Your task to perform on an android device: install app "Google Duo" Image 0: 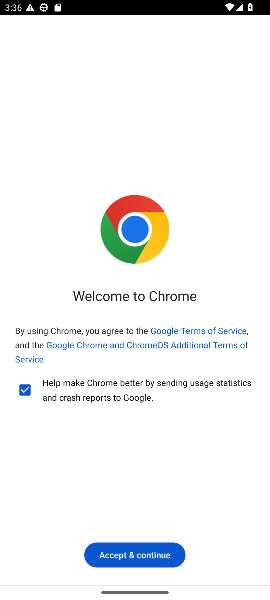
Step 0: press home button
Your task to perform on an android device: install app "Google Duo" Image 1: 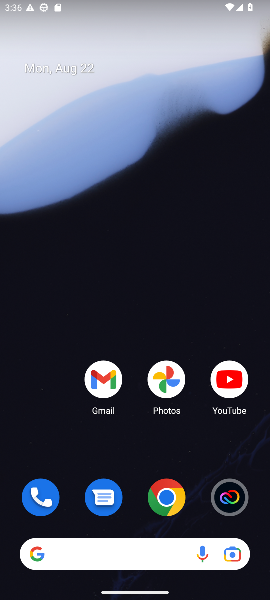
Step 1: drag from (131, 443) to (129, 86)
Your task to perform on an android device: install app "Google Duo" Image 2: 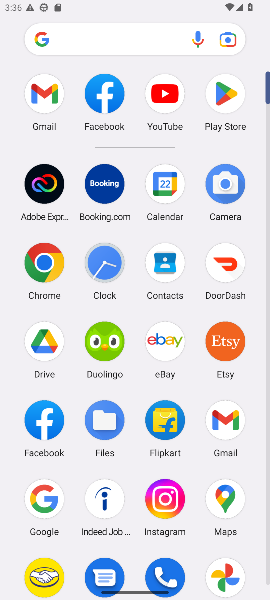
Step 2: click (214, 105)
Your task to perform on an android device: install app "Google Duo" Image 3: 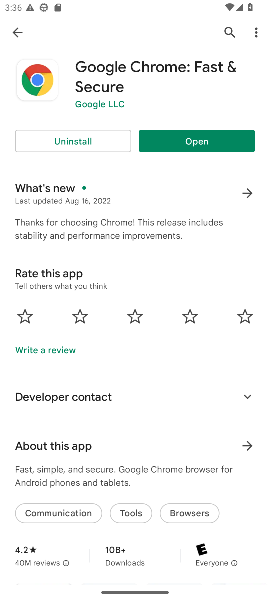
Step 3: click (229, 23)
Your task to perform on an android device: install app "Google Duo" Image 4: 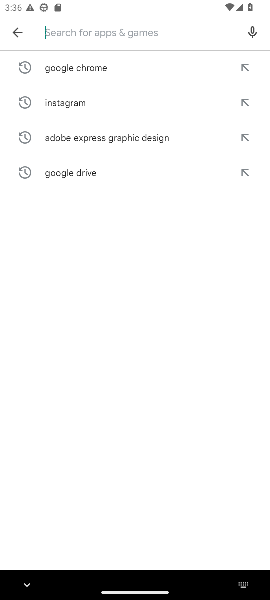
Step 4: type "Google Duo"
Your task to perform on an android device: install app "Google Duo" Image 5: 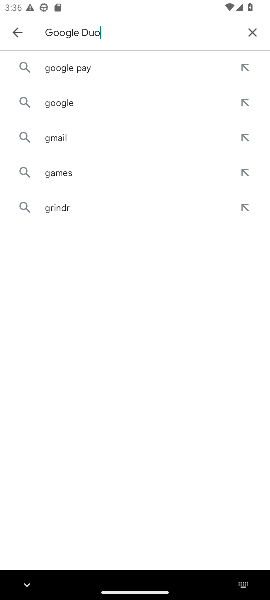
Step 5: type ""
Your task to perform on an android device: install app "Google Duo" Image 6: 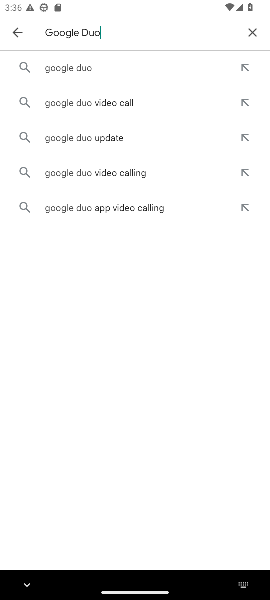
Step 6: click (103, 69)
Your task to perform on an android device: install app "Google Duo" Image 7: 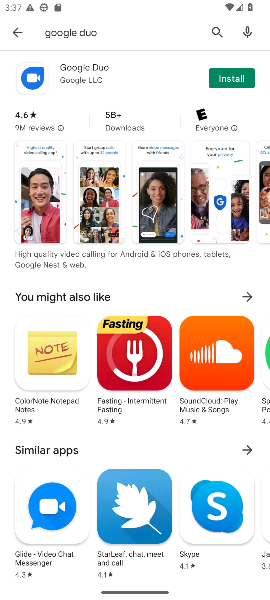
Step 7: click (235, 74)
Your task to perform on an android device: install app "Google Duo" Image 8: 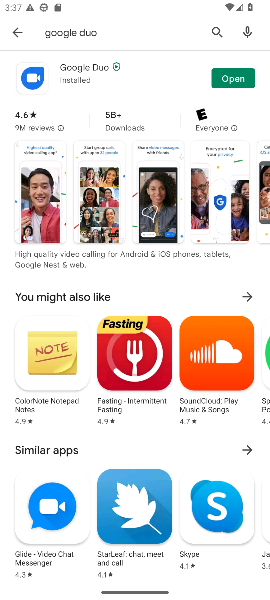
Step 8: task complete